Your task to perform on an android device: Open CNN.com Image 0: 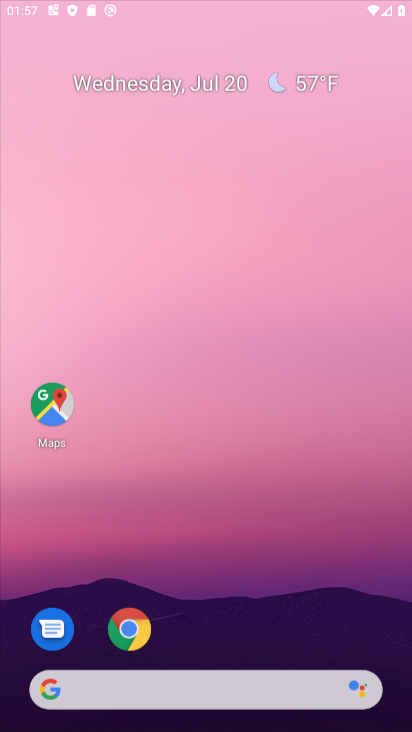
Step 0: click (313, 125)
Your task to perform on an android device: Open CNN.com Image 1: 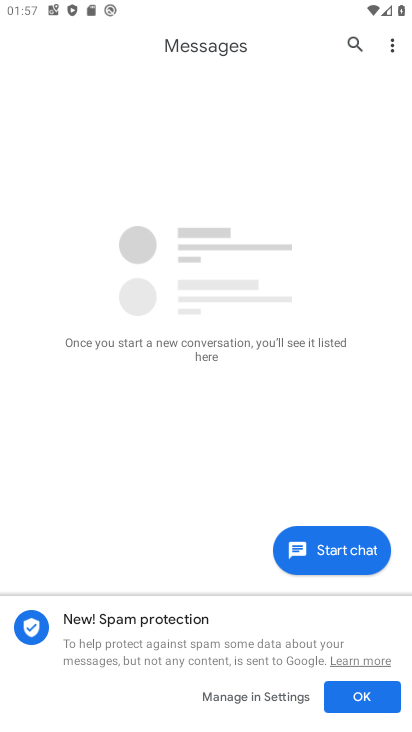
Step 1: press home button
Your task to perform on an android device: Open CNN.com Image 2: 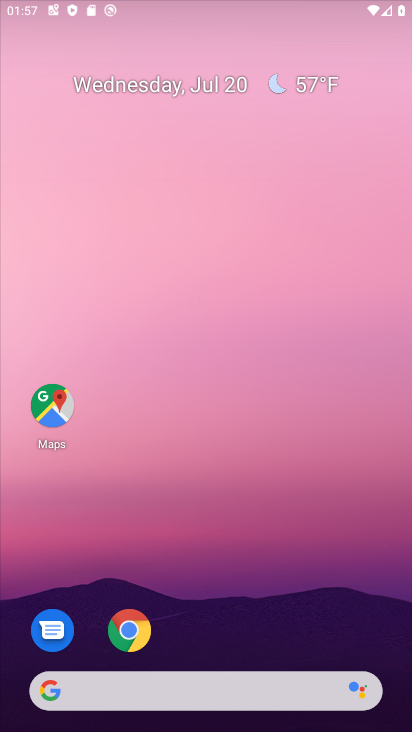
Step 2: drag from (283, 586) to (270, 95)
Your task to perform on an android device: Open CNN.com Image 3: 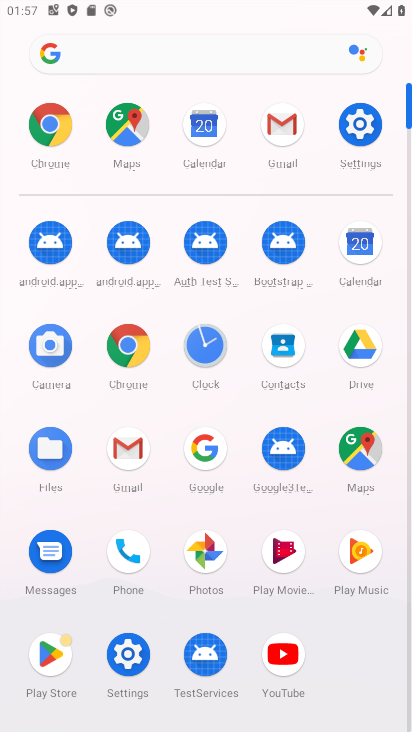
Step 3: click (121, 347)
Your task to perform on an android device: Open CNN.com Image 4: 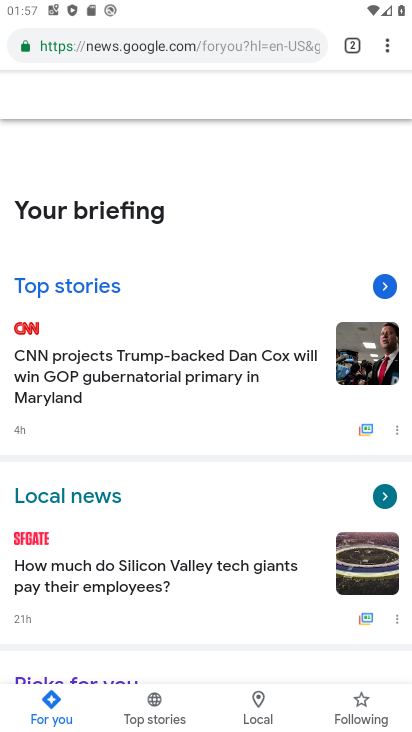
Step 4: click (202, 50)
Your task to perform on an android device: Open CNN.com Image 5: 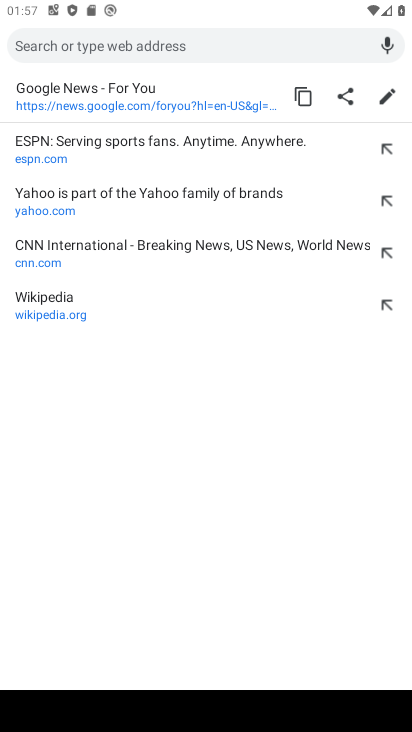
Step 5: click (25, 262)
Your task to perform on an android device: Open CNN.com Image 6: 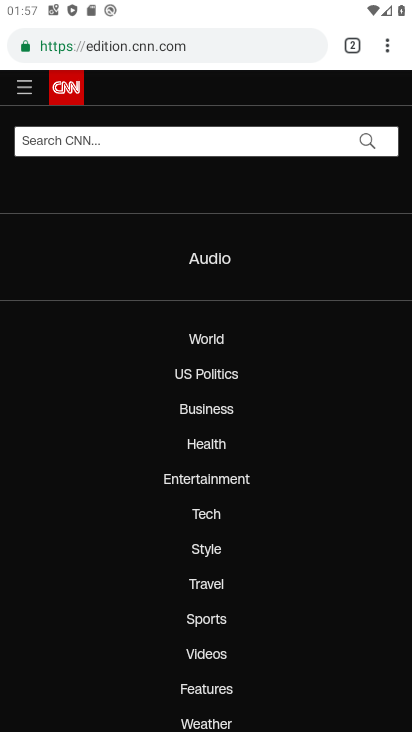
Step 6: task complete